Your task to perform on an android device: find photos in the google photos app Image 0: 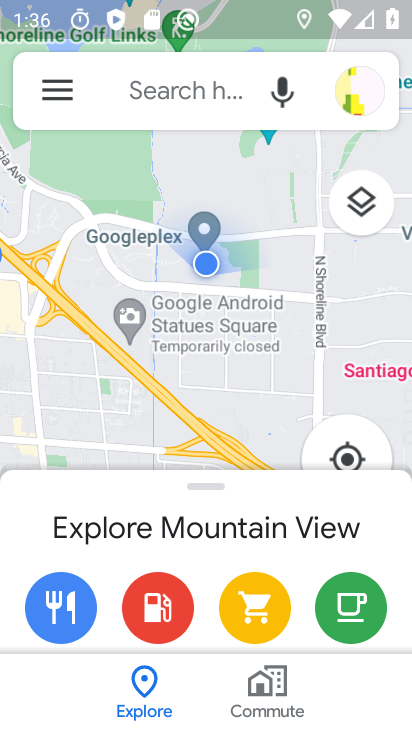
Step 0: press home button
Your task to perform on an android device: find photos in the google photos app Image 1: 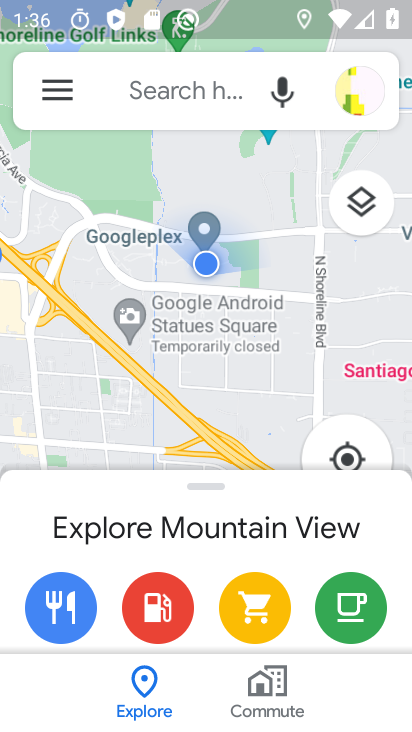
Step 1: press home button
Your task to perform on an android device: find photos in the google photos app Image 2: 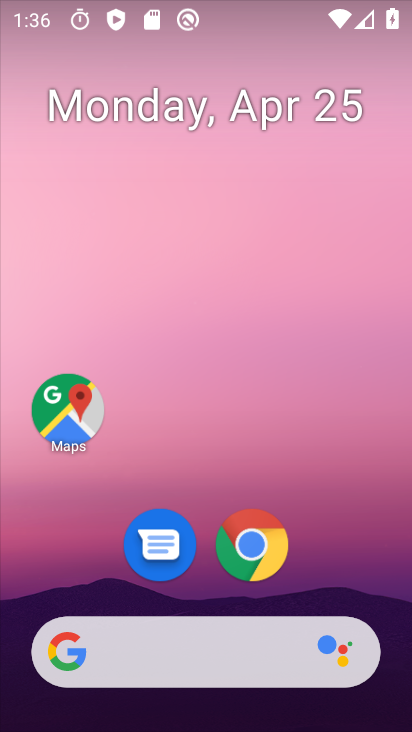
Step 2: drag from (328, 549) to (293, 114)
Your task to perform on an android device: find photos in the google photos app Image 3: 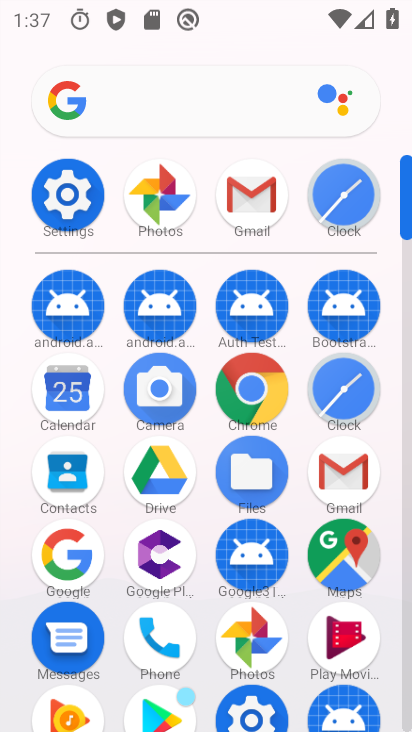
Step 3: click (257, 641)
Your task to perform on an android device: find photos in the google photos app Image 4: 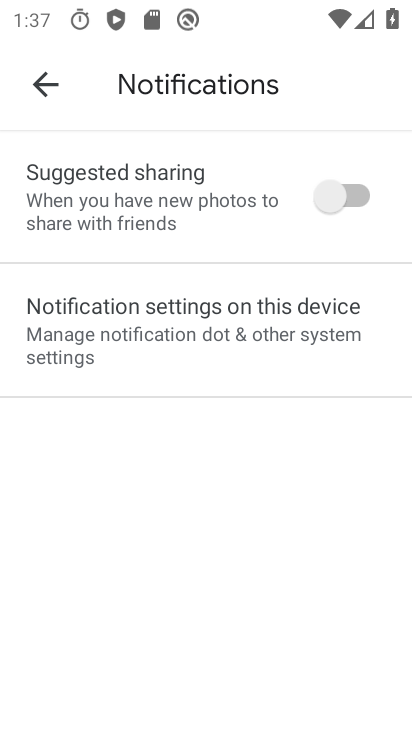
Step 4: press home button
Your task to perform on an android device: find photos in the google photos app Image 5: 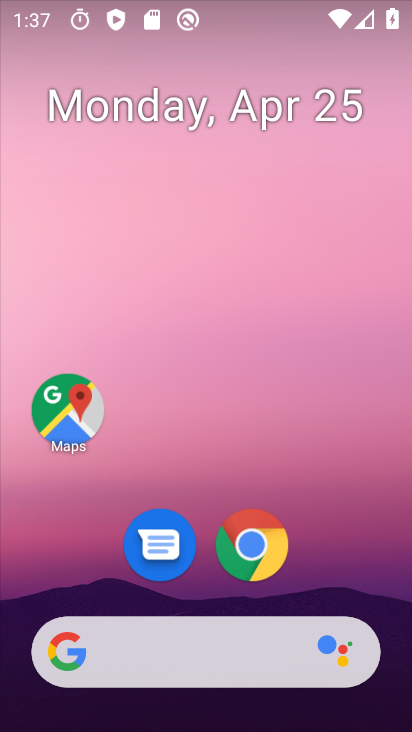
Step 5: drag from (337, 573) to (326, 112)
Your task to perform on an android device: find photos in the google photos app Image 6: 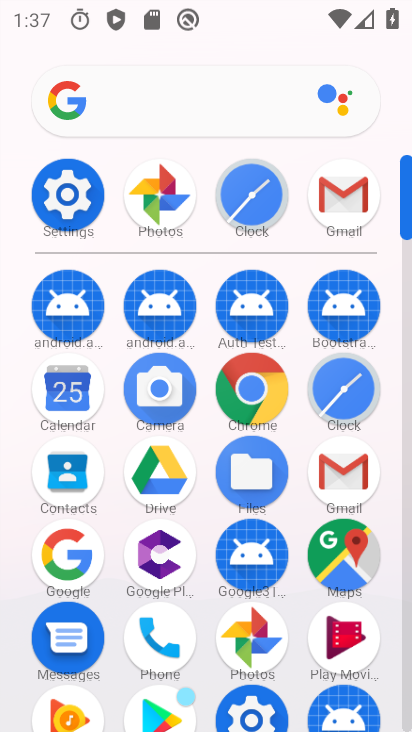
Step 6: click (256, 635)
Your task to perform on an android device: find photos in the google photos app Image 7: 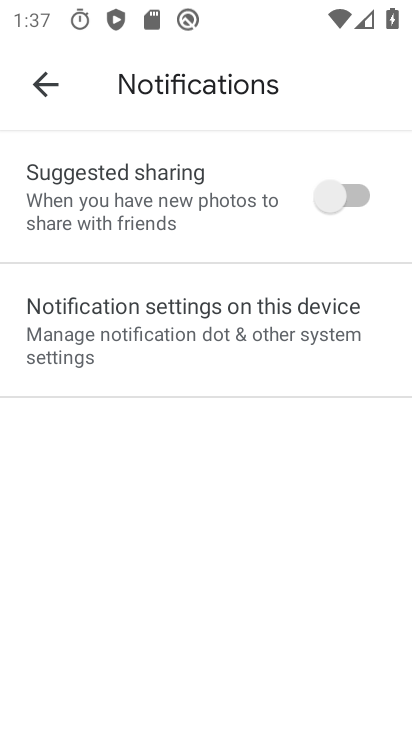
Step 7: click (51, 88)
Your task to perform on an android device: find photos in the google photos app Image 8: 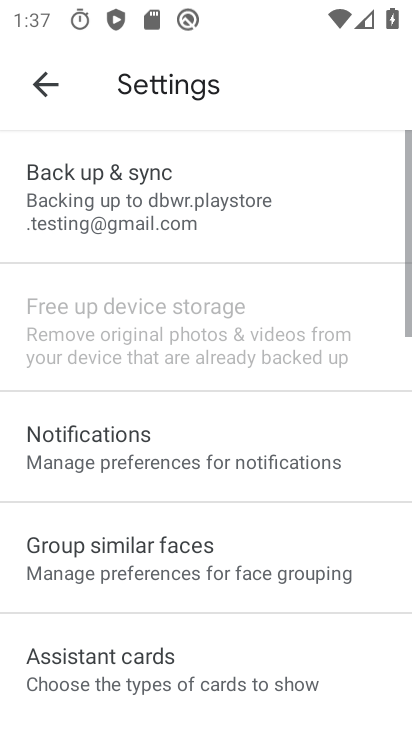
Step 8: click (51, 88)
Your task to perform on an android device: find photos in the google photos app Image 9: 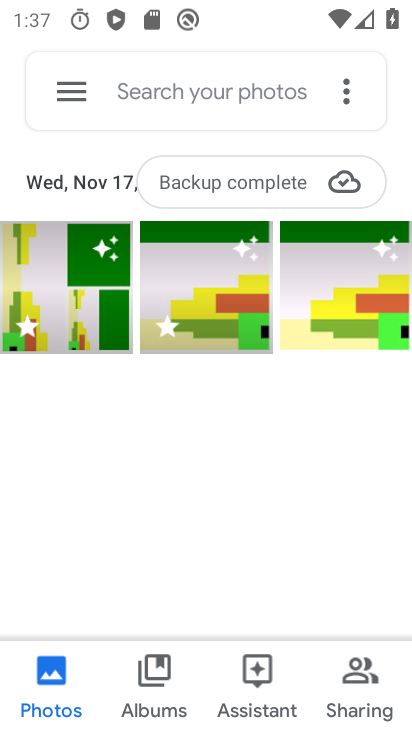
Step 9: task complete